Your task to perform on an android device: toggle data saver in the chrome app Image 0: 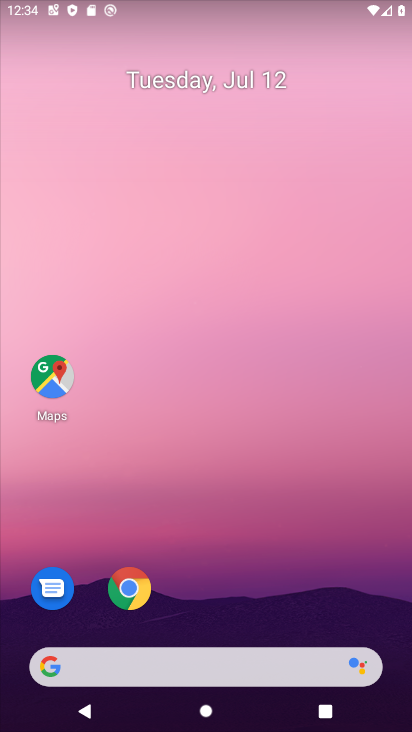
Step 0: click (134, 591)
Your task to perform on an android device: toggle data saver in the chrome app Image 1: 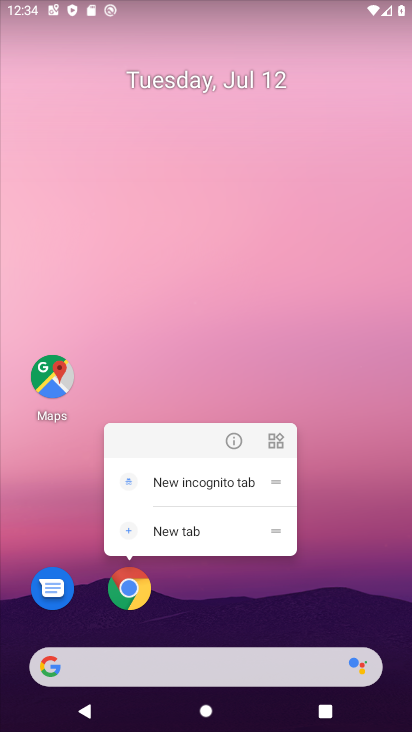
Step 1: click (135, 590)
Your task to perform on an android device: toggle data saver in the chrome app Image 2: 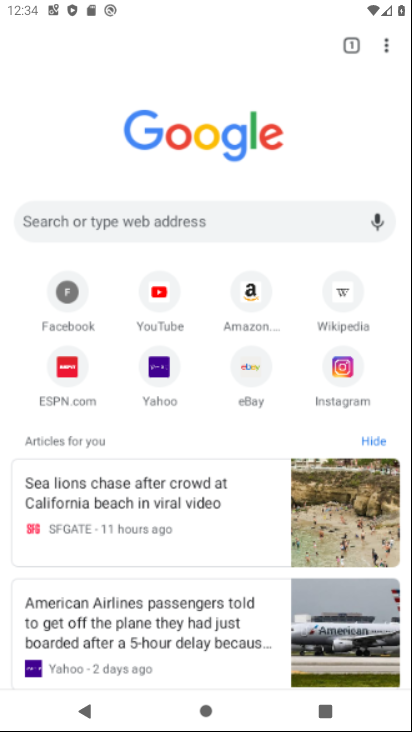
Step 2: click (384, 34)
Your task to perform on an android device: toggle data saver in the chrome app Image 3: 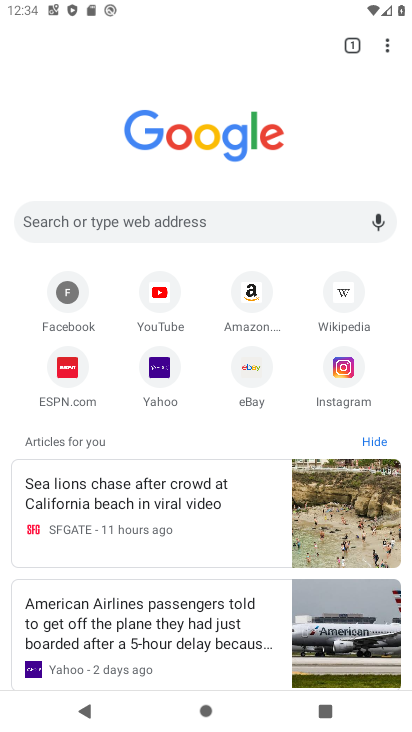
Step 3: click (386, 45)
Your task to perform on an android device: toggle data saver in the chrome app Image 4: 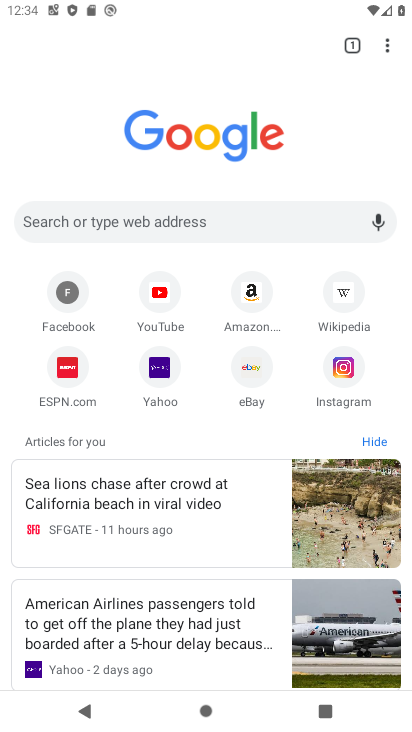
Step 4: click (389, 45)
Your task to perform on an android device: toggle data saver in the chrome app Image 5: 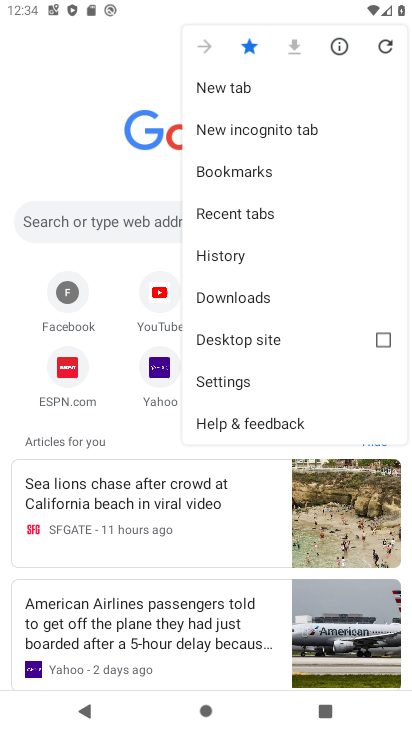
Step 5: click (240, 378)
Your task to perform on an android device: toggle data saver in the chrome app Image 6: 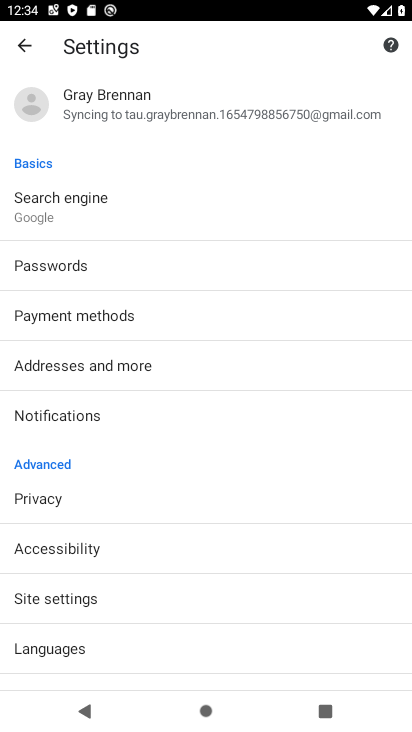
Step 6: drag from (65, 656) to (58, 489)
Your task to perform on an android device: toggle data saver in the chrome app Image 7: 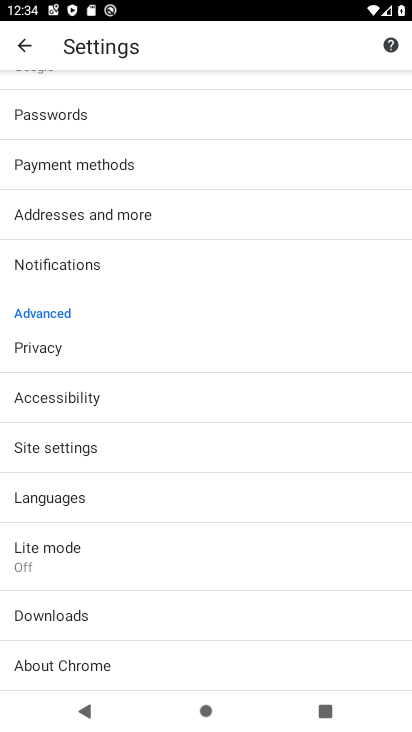
Step 7: click (54, 555)
Your task to perform on an android device: toggle data saver in the chrome app Image 8: 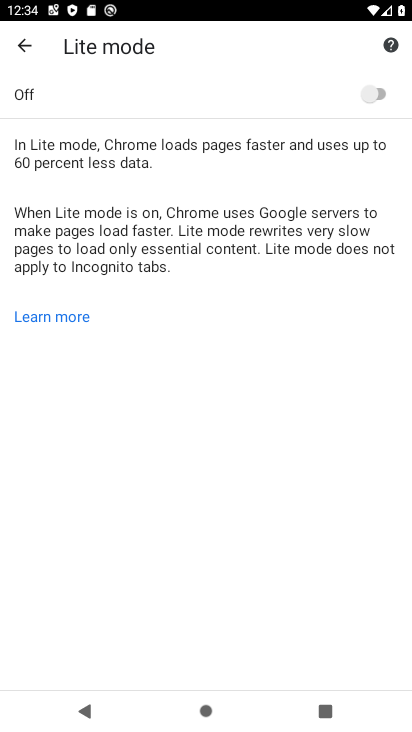
Step 8: click (384, 95)
Your task to perform on an android device: toggle data saver in the chrome app Image 9: 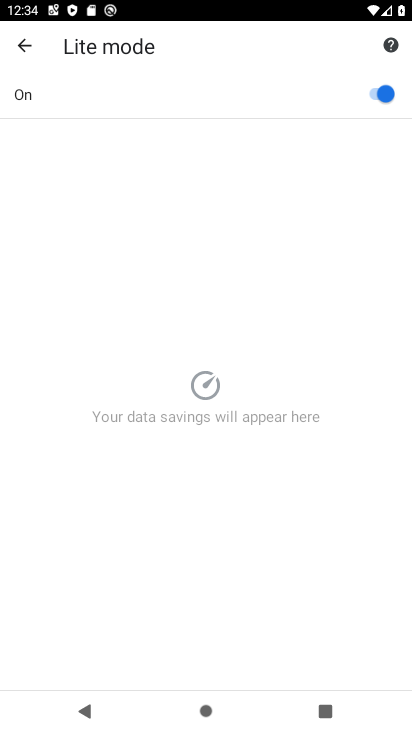
Step 9: task complete